Your task to perform on an android device: turn vacation reply on in the gmail app Image 0: 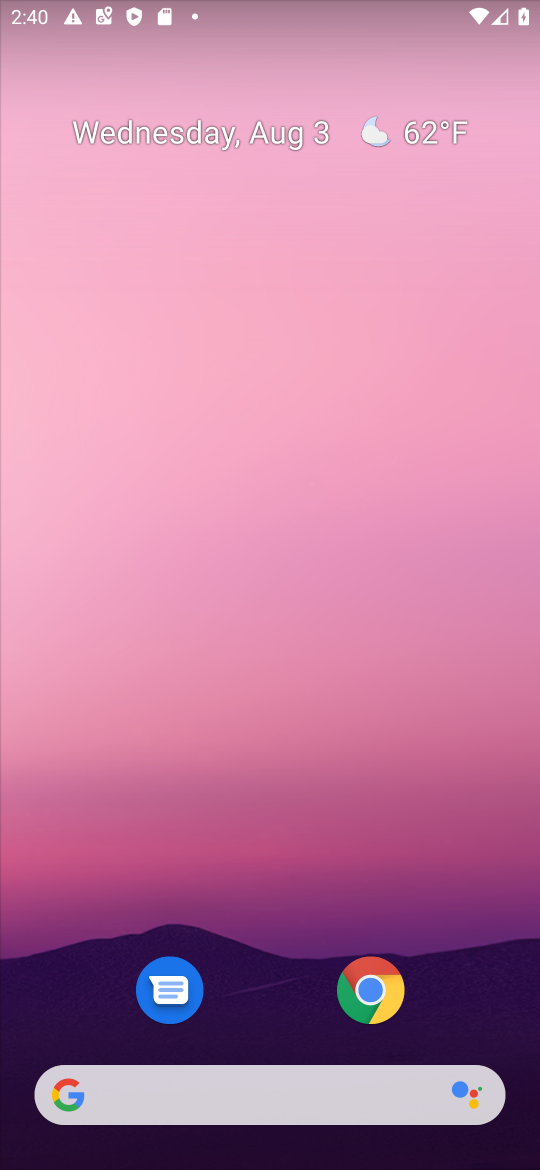
Step 0: drag from (262, 1071) to (262, 321)
Your task to perform on an android device: turn vacation reply on in the gmail app Image 1: 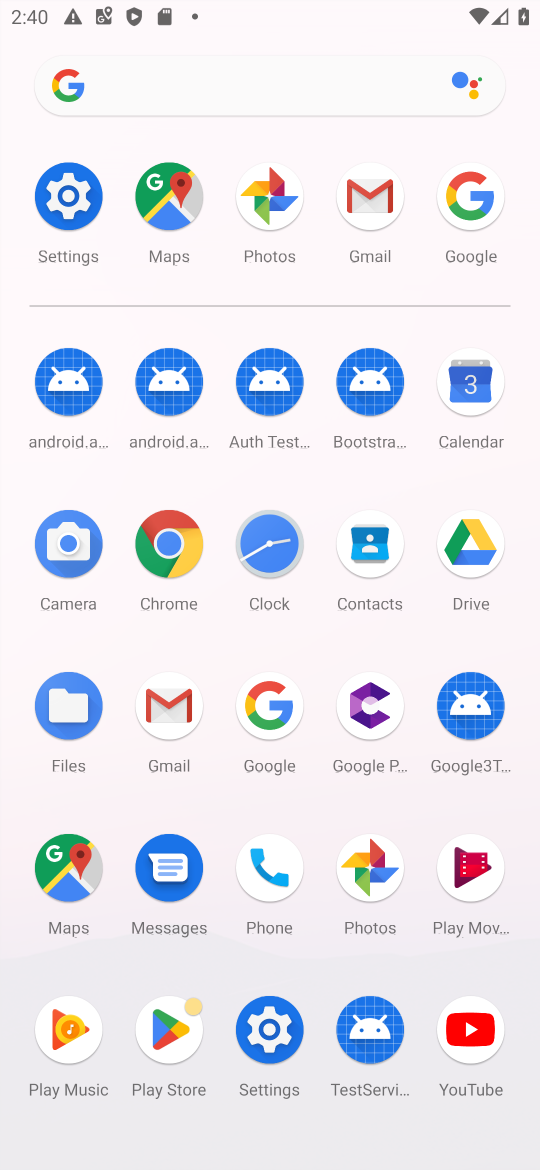
Step 1: click (172, 718)
Your task to perform on an android device: turn vacation reply on in the gmail app Image 2: 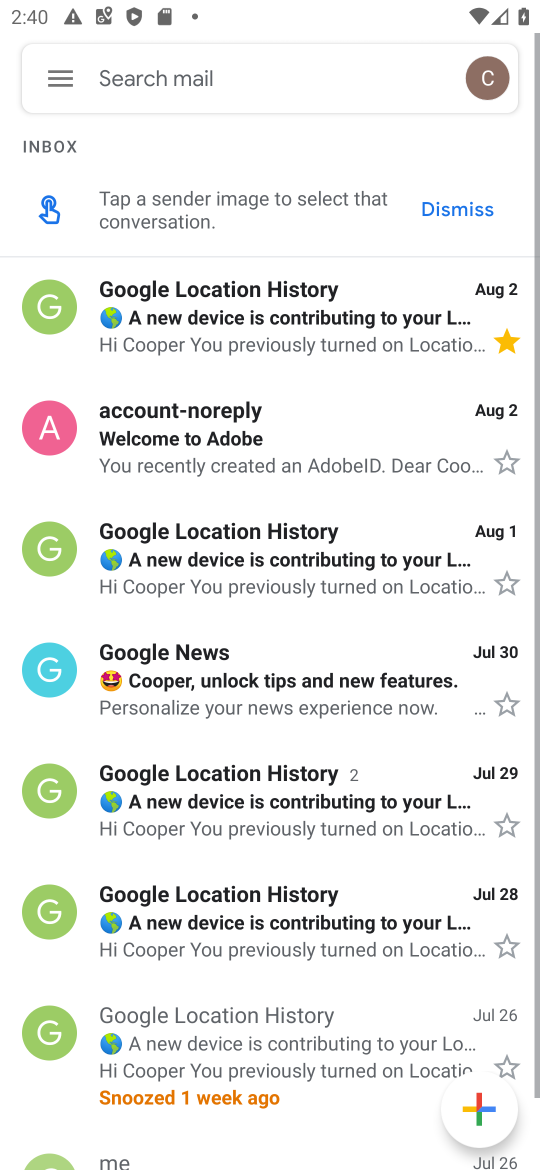
Step 2: click (65, 82)
Your task to perform on an android device: turn vacation reply on in the gmail app Image 3: 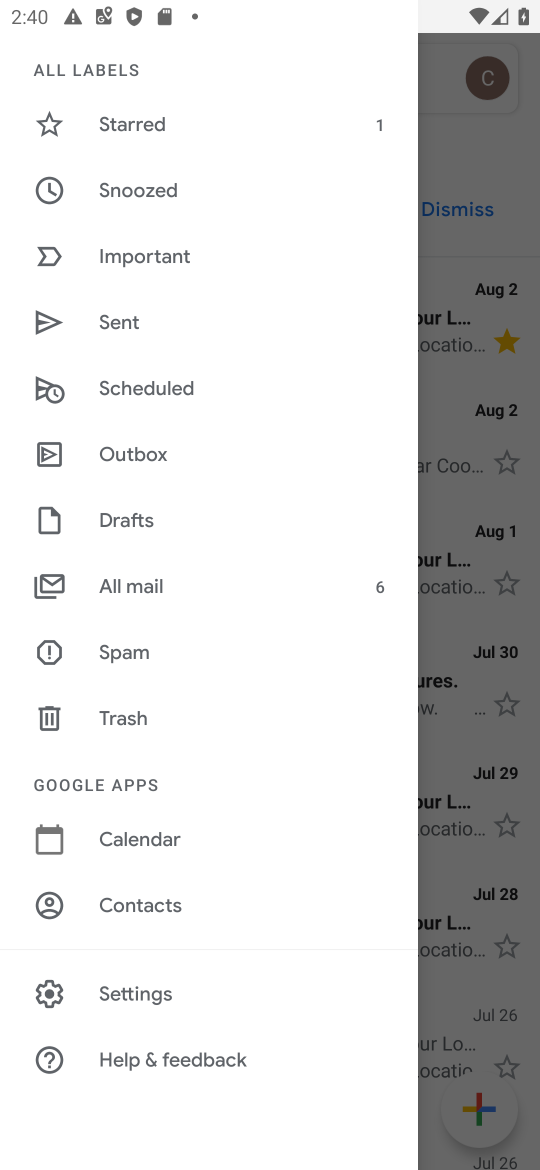
Step 3: click (114, 988)
Your task to perform on an android device: turn vacation reply on in the gmail app Image 4: 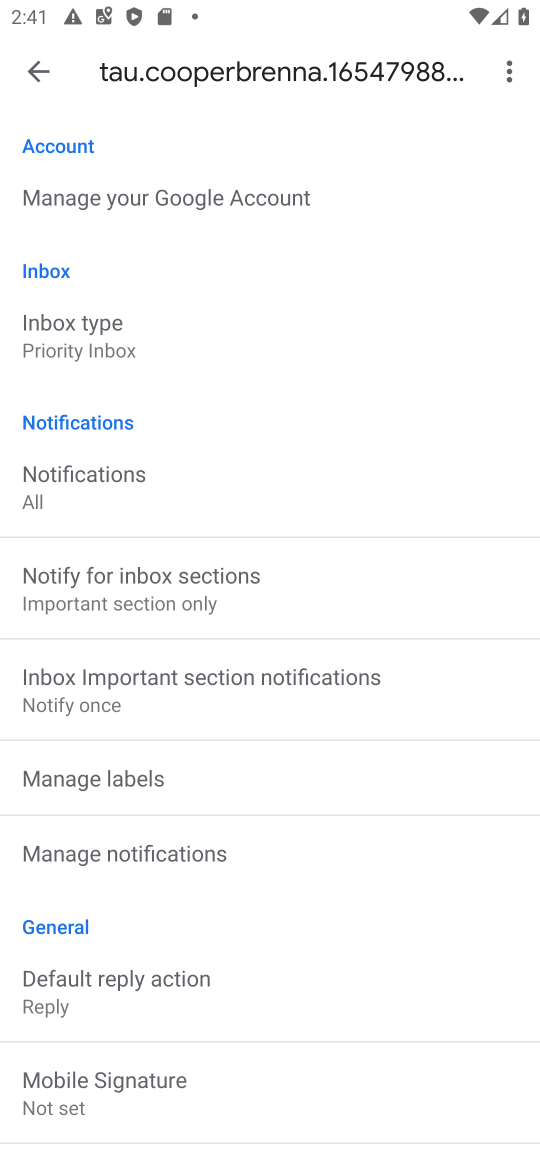
Step 4: drag from (146, 1120) to (134, 343)
Your task to perform on an android device: turn vacation reply on in the gmail app Image 5: 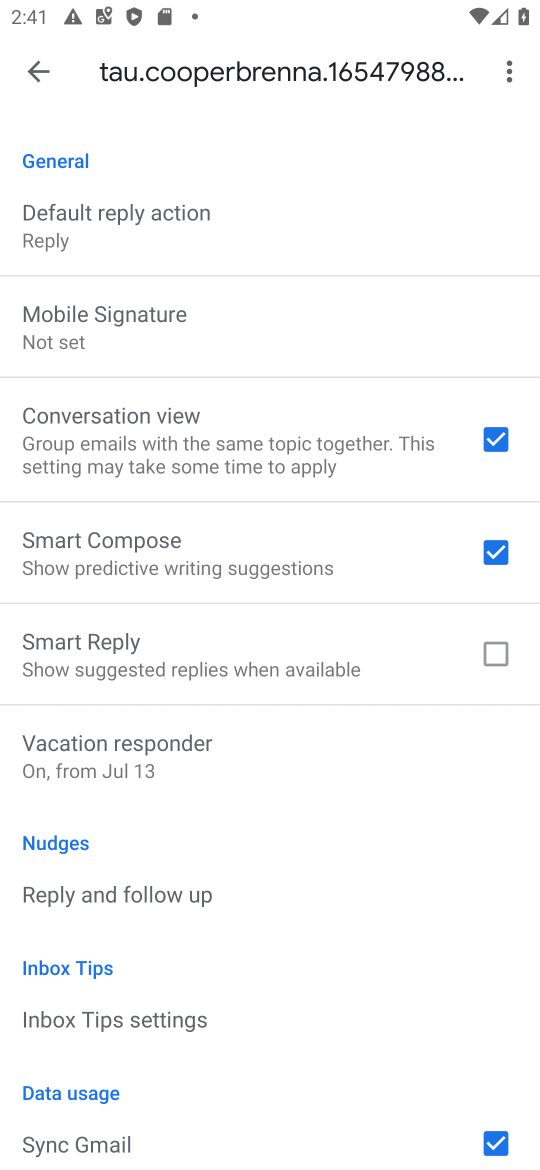
Step 5: drag from (140, 1080) to (145, 428)
Your task to perform on an android device: turn vacation reply on in the gmail app Image 6: 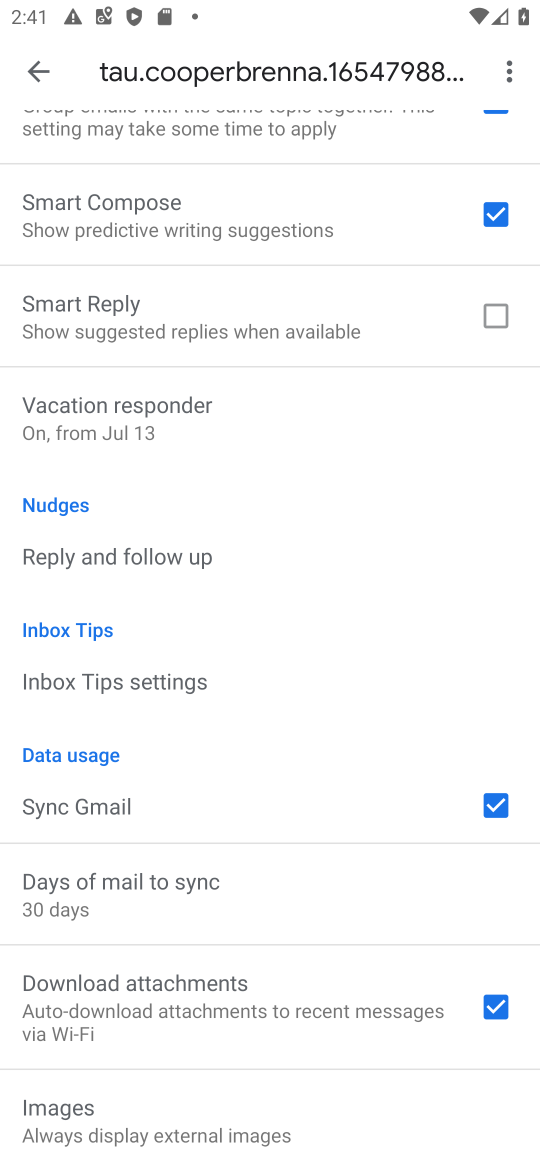
Step 6: click (102, 418)
Your task to perform on an android device: turn vacation reply on in the gmail app Image 7: 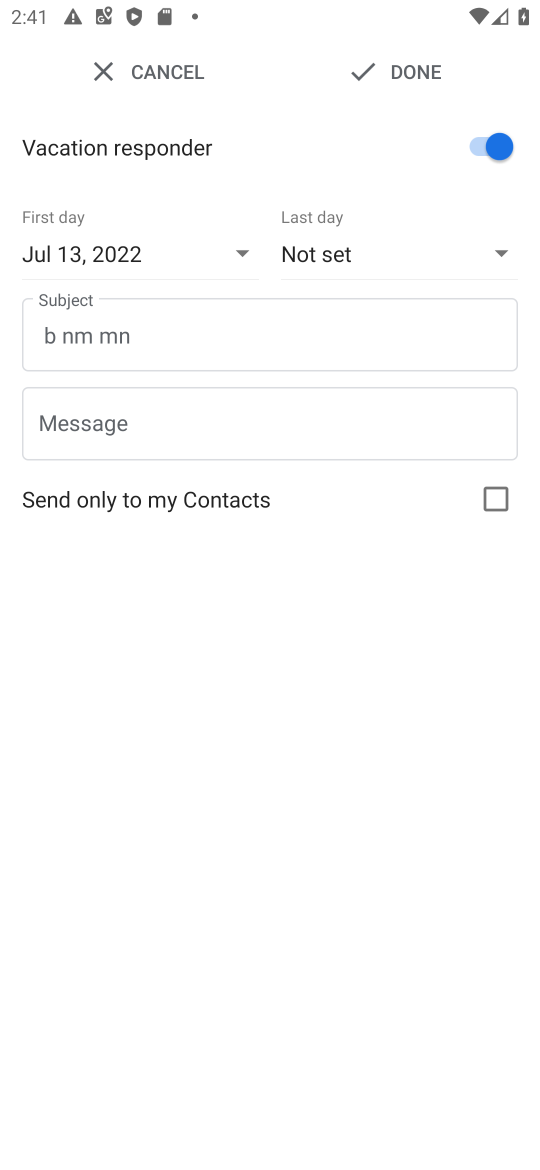
Step 7: click (415, 74)
Your task to perform on an android device: turn vacation reply on in the gmail app Image 8: 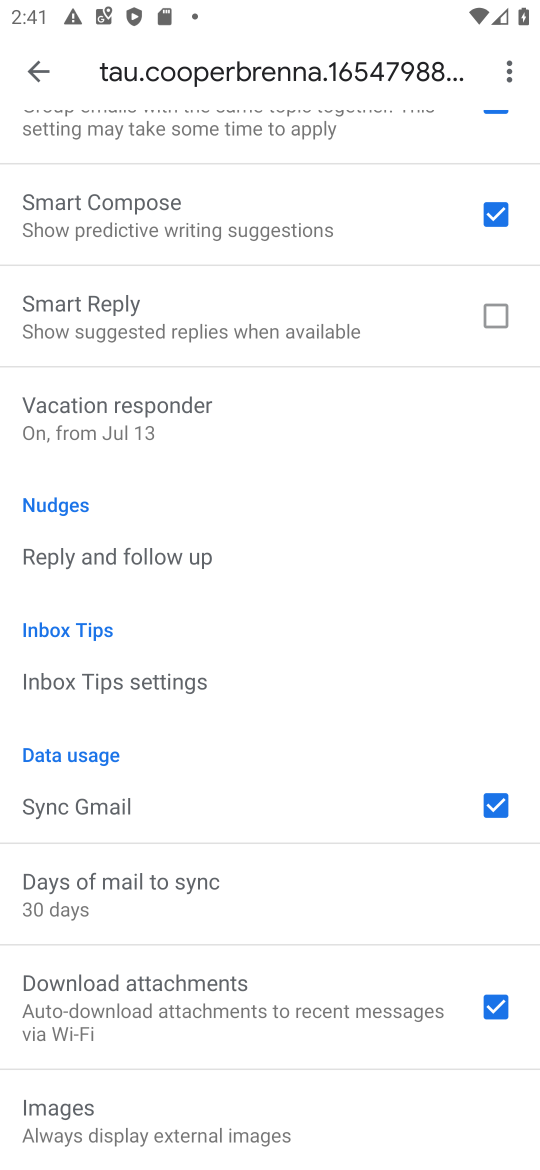
Step 8: task complete